Your task to perform on an android device: Open Reddit.com Image 0: 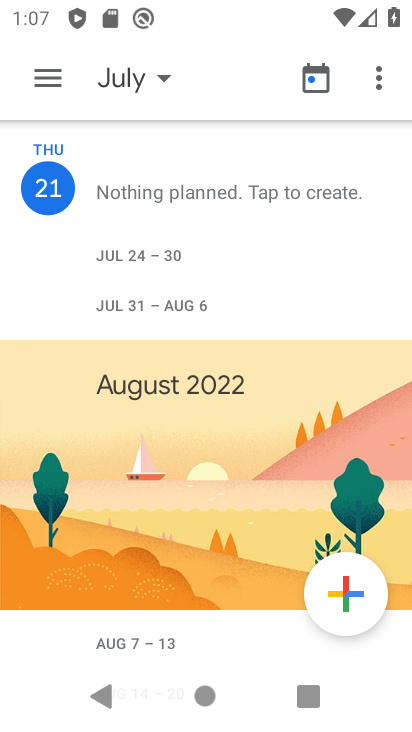
Step 0: press back button
Your task to perform on an android device: Open Reddit.com Image 1: 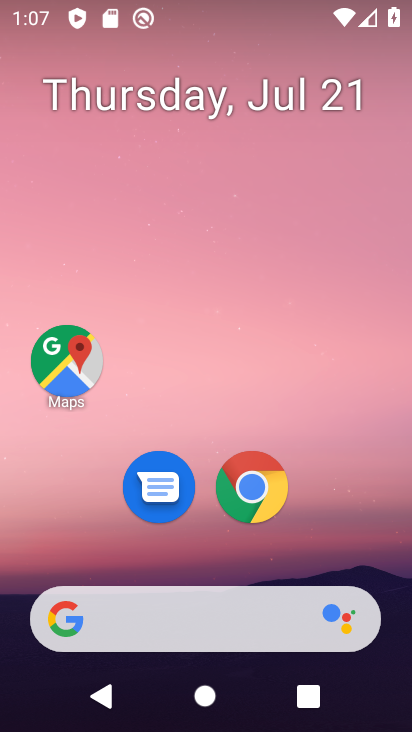
Step 1: click (257, 489)
Your task to perform on an android device: Open Reddit.com Image 2: 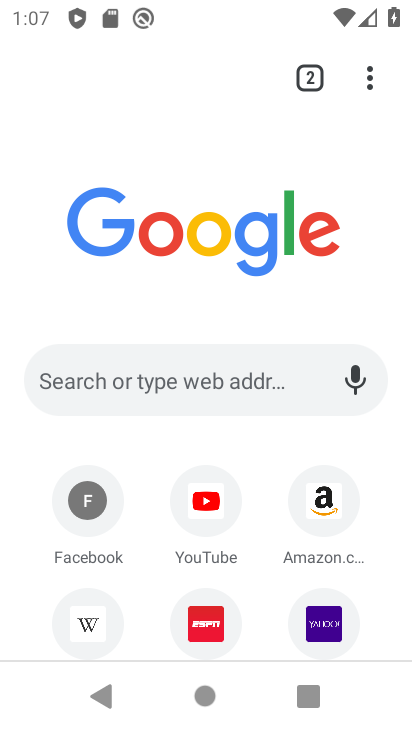
Step 2: click (161, 382)
Your task to perform on an android device: Open Reddit.com Image 3: 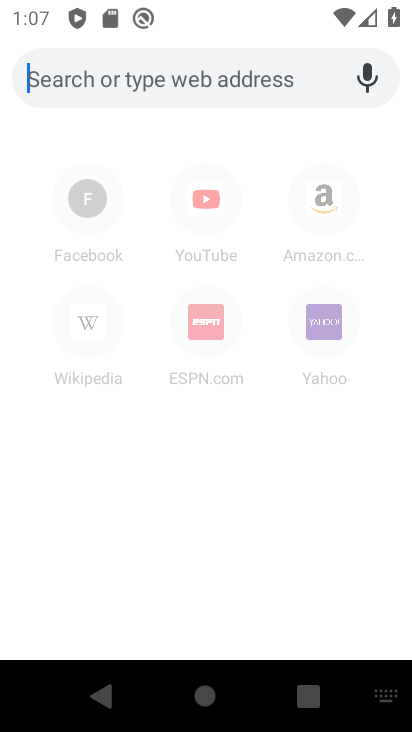
Step 3: type "reddit.com"
Your task to perform on an android device: Open Reddit.com Image 4: 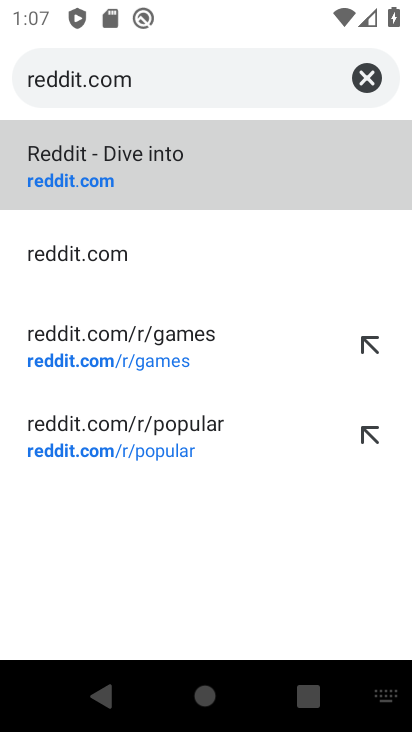
Step 4: click (83, 166)
Your task to perform on an android device: Open Reddit.com Image 5: 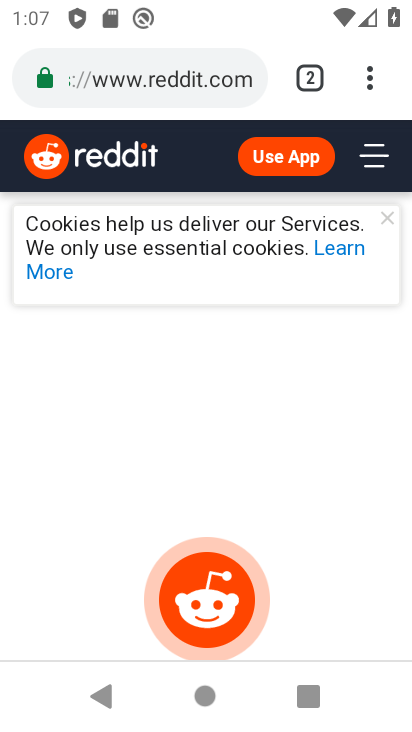
Step 5: task complete